Your task to perform on an android device: Open my contact list Image 0: 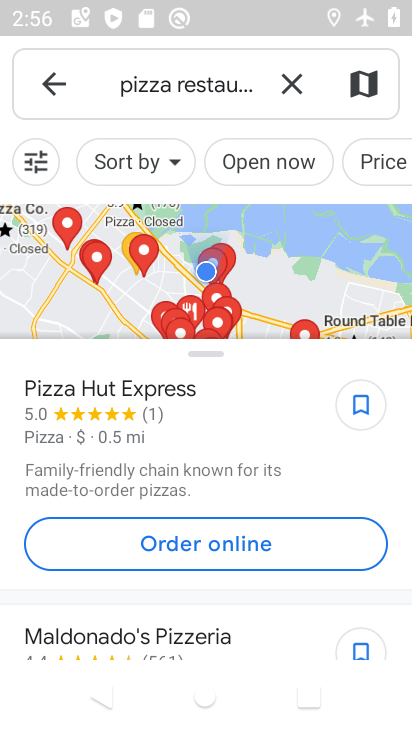
Step 0: press home button
Your task to perform on an android device: Open my contact list Image 1: 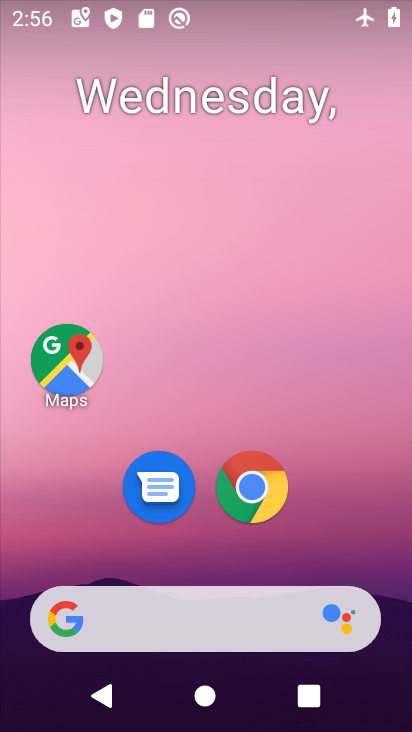
Step 1: drag from (296, 566) to (239, 57)
Your task to perform on an android device: Open my contact list Image 2: 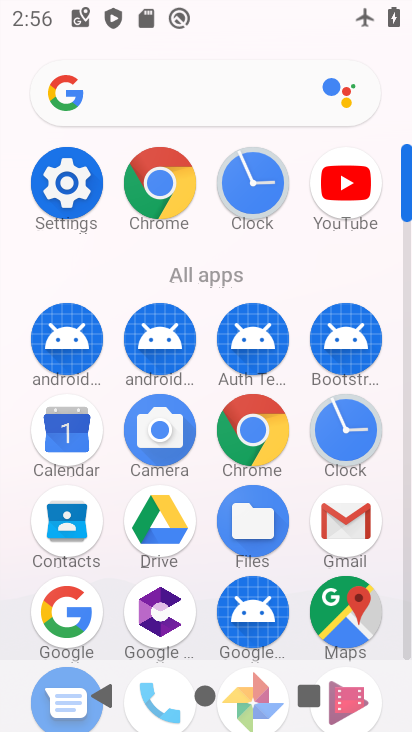
Step 2: click (83, 524)
Your task to perform on an android device: Open my contact list Image 3: 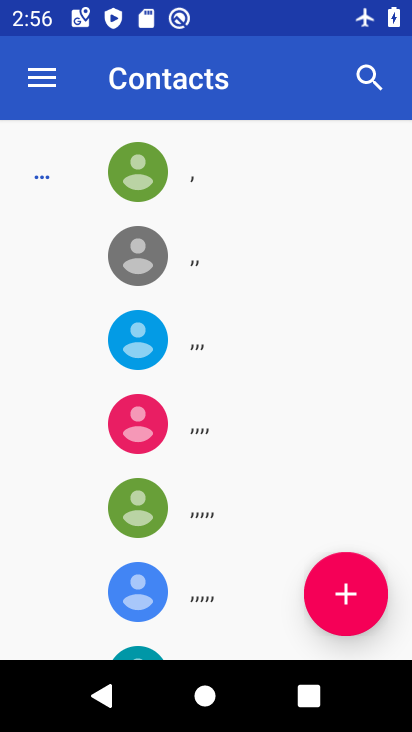
Step 3: task complete